Your task to perform on an android device: uninstall "Skype" Image 0: 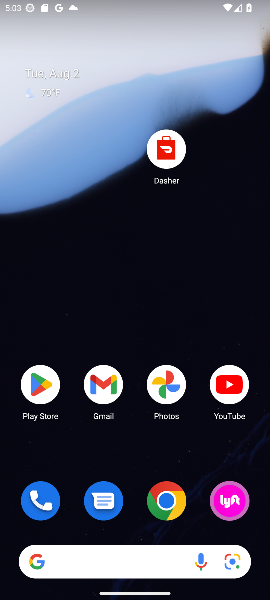
Step 0: click (40, 391)
Your task to perform on an android device: uninstall "Skype" Image 1: 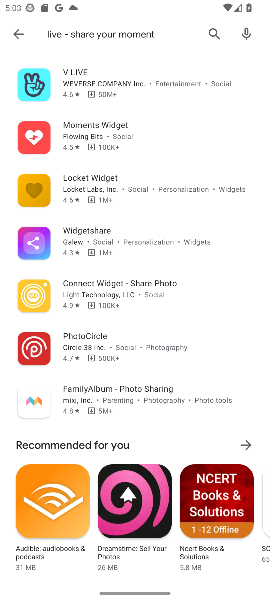
Step 1: click (216, 36)
Your task to perform on an android device: uninstall "Skype" Image 2: 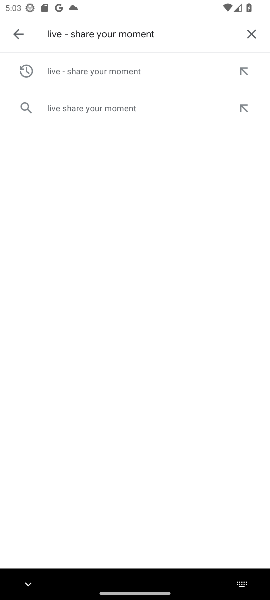
Step 2: click (252, 34)
Your task to perform on an android device: uninstall "Skype" Image 3: 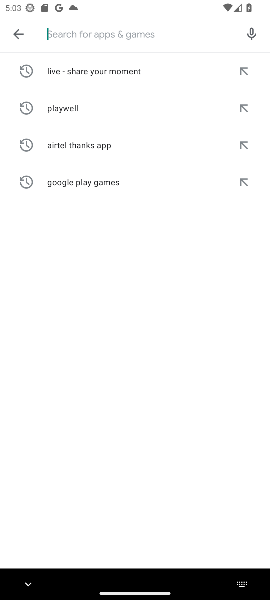
Step 3: type "Skype"
Your task to perform on an android device: uninstall "Skype" Image 4: 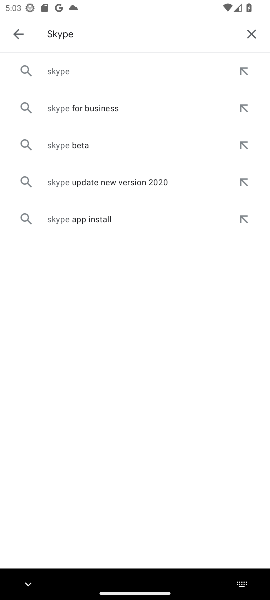
Step 4: click (41, 74)
Your task to perform on an android device: uninstall "Skype" Image 5: 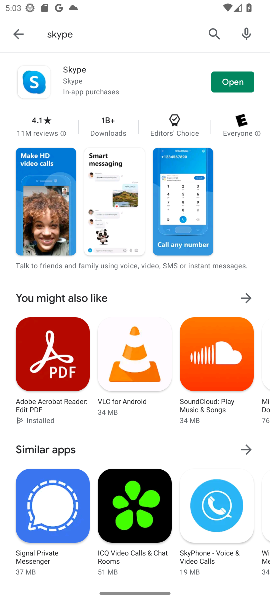
Step 5: click (75, 77)
Your task to perform on an android device: uninstall "Skype" Image 6: 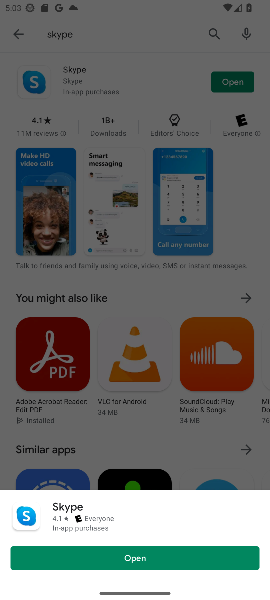
Step 6: click (63, 93)
Your task to perform on an android device: uninstall "Skype" Image 7: 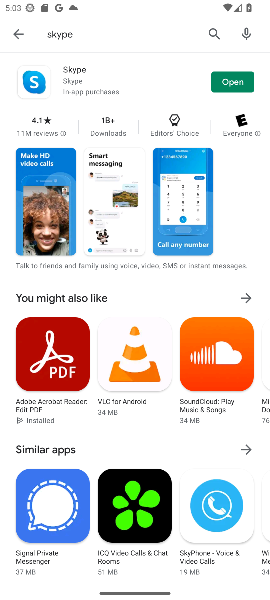
Step 7: click (65, 75)
Your task to perform on an android device: uninstall "Skype" Image 8: 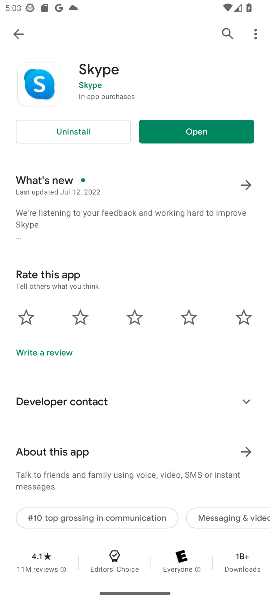
Step 8: click (74, 134)
Your task to perform on an android device: uninstall "Skype" Image 9: 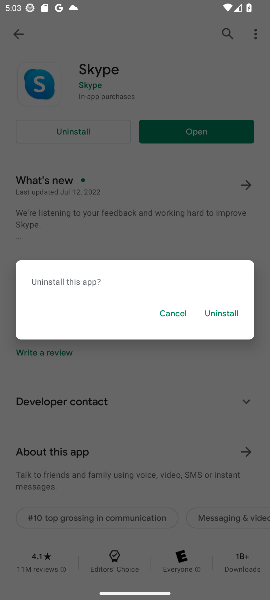
Step 9: click (227, 316)
Your task to perform on an android device: uninstall "Skype" Image 10: 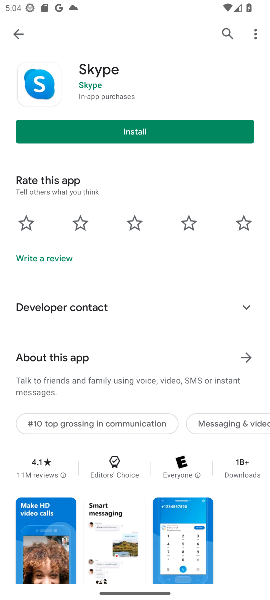
Step 10: task complete